Your task to perform on an android device: open app "Google Docs" Image 0: 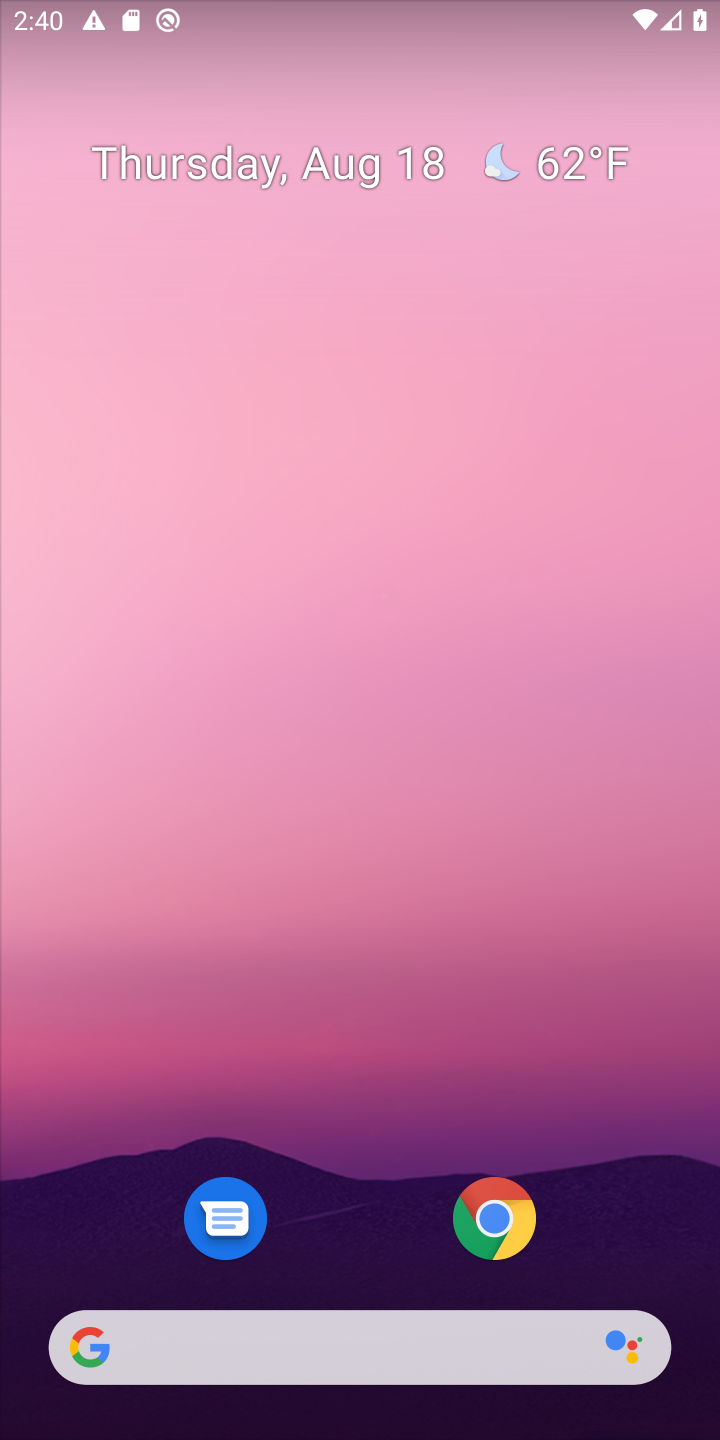
Step 0: drag from (355, 1198) to (388, 346)
Your task to perform on an android device: open app "Google Docs" Image 1: 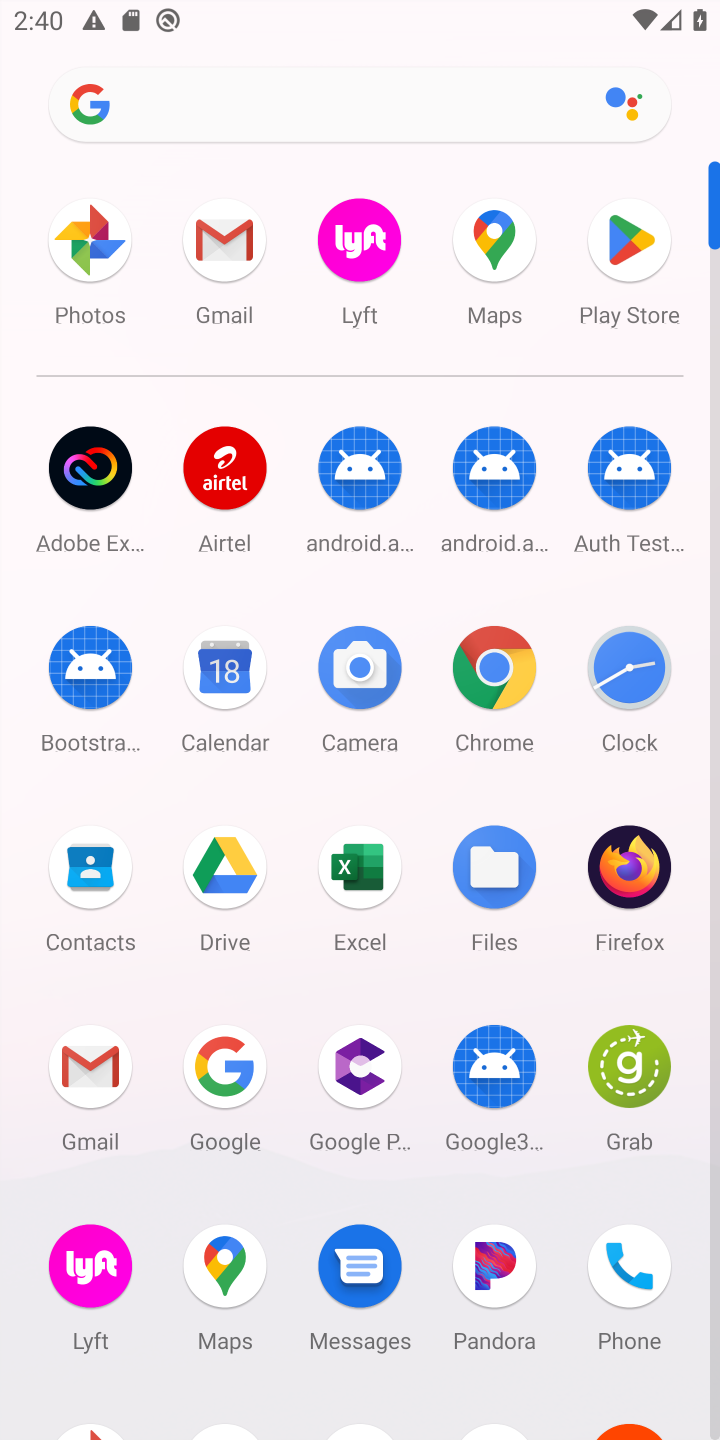
Step 1: click (611, 251)
Your task to perform on an android device: open app "Google Docs" Image 2: 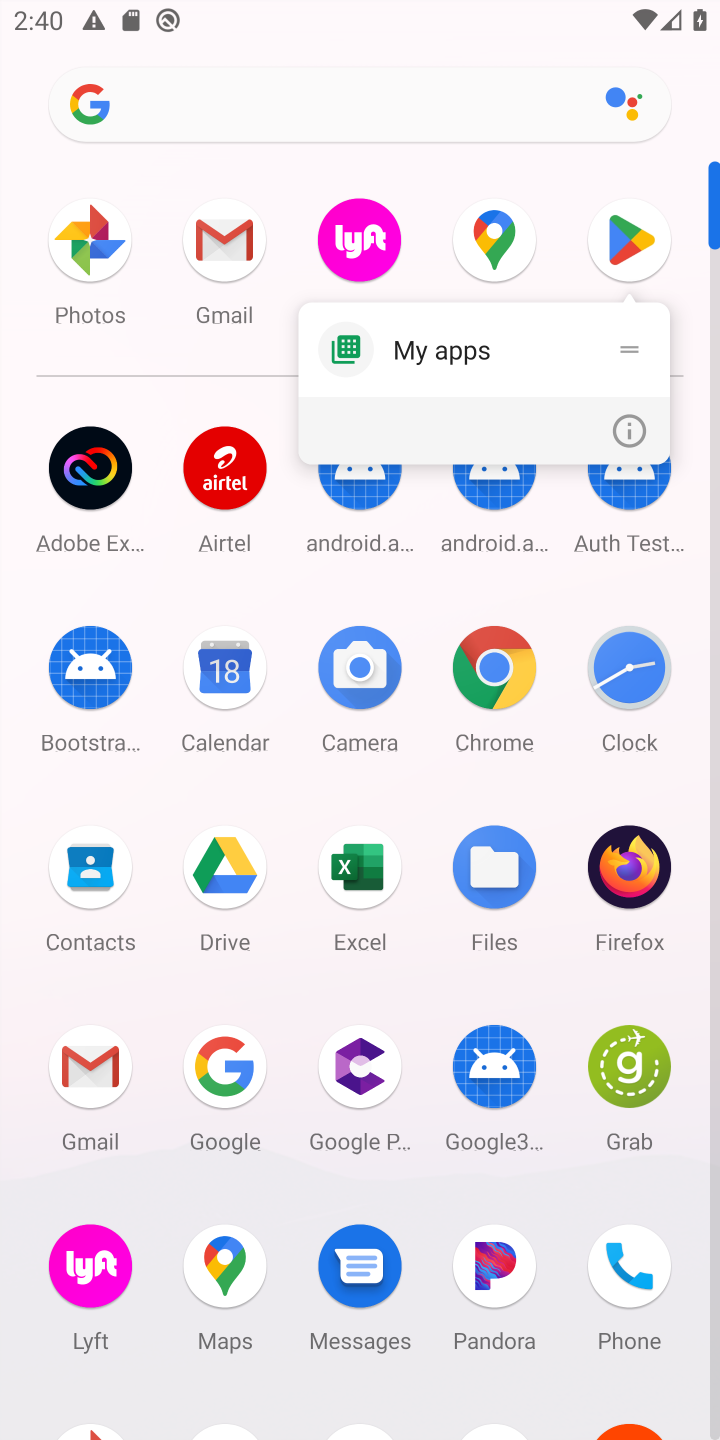
Step 2: click (621, 234)
Your task to perform on an android device: open app "Google Docs" Image 3: 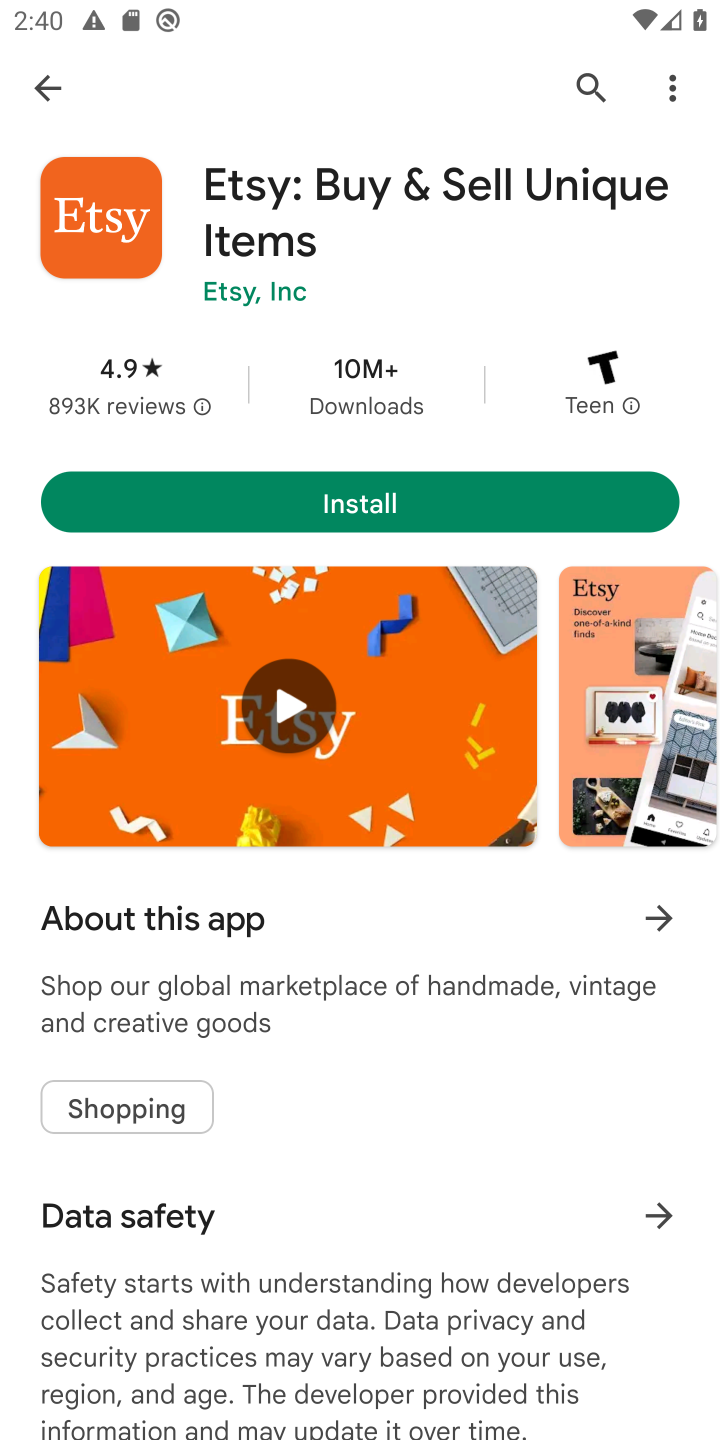
Step 3: click (592, 75)
Your task to perform on an android device: open app "Google Docs" Image 4: 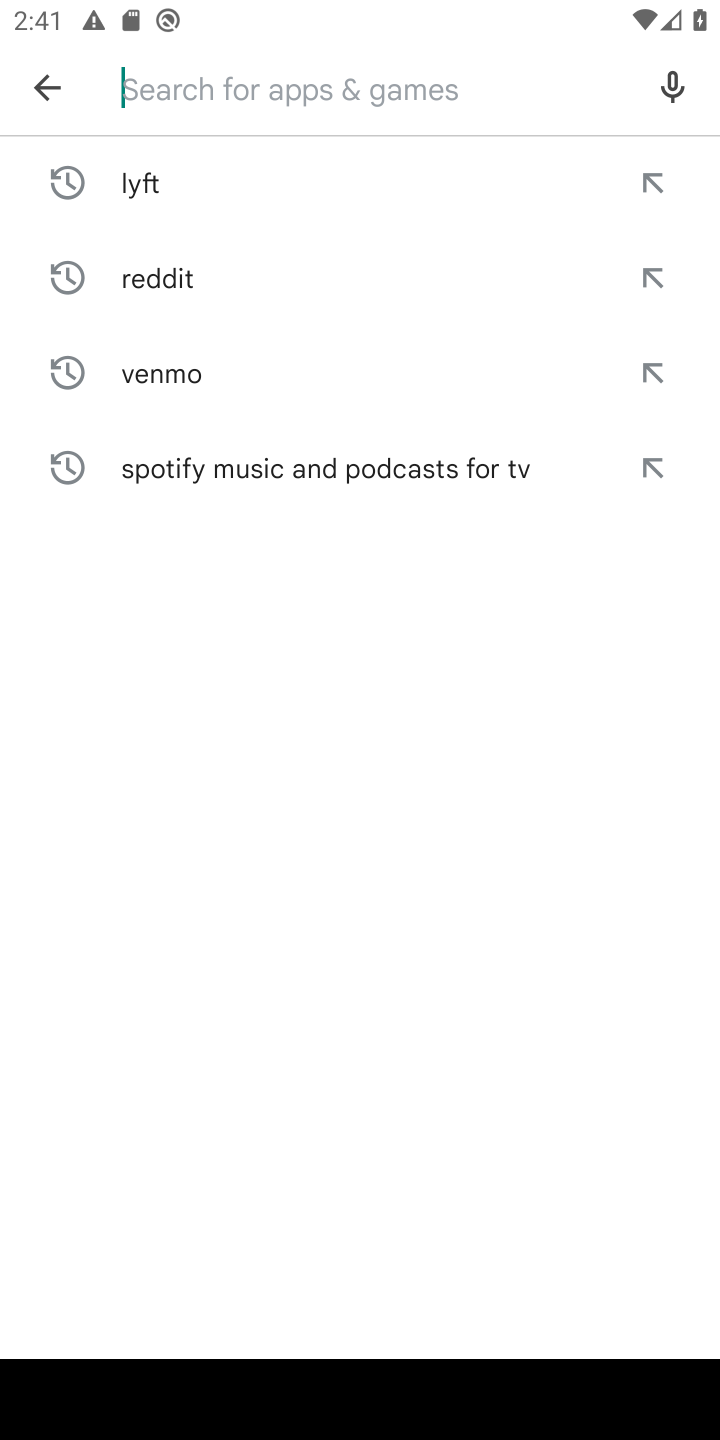
Step 4: type "Google Docs"
Your task to perform on an android device: open app "Google Docs" Image 5: 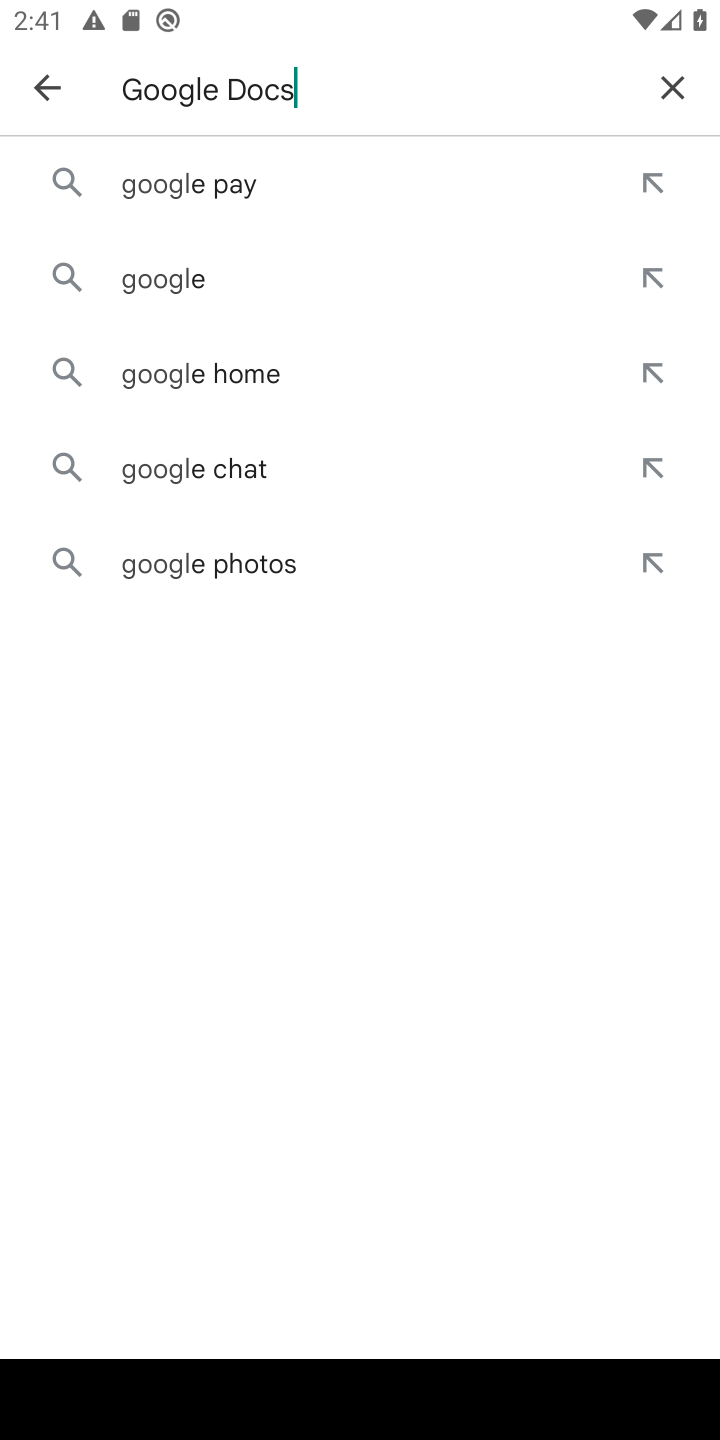
Step 5: type ""
Your task to perform on an android device: open app "Google Docs" Image 6: 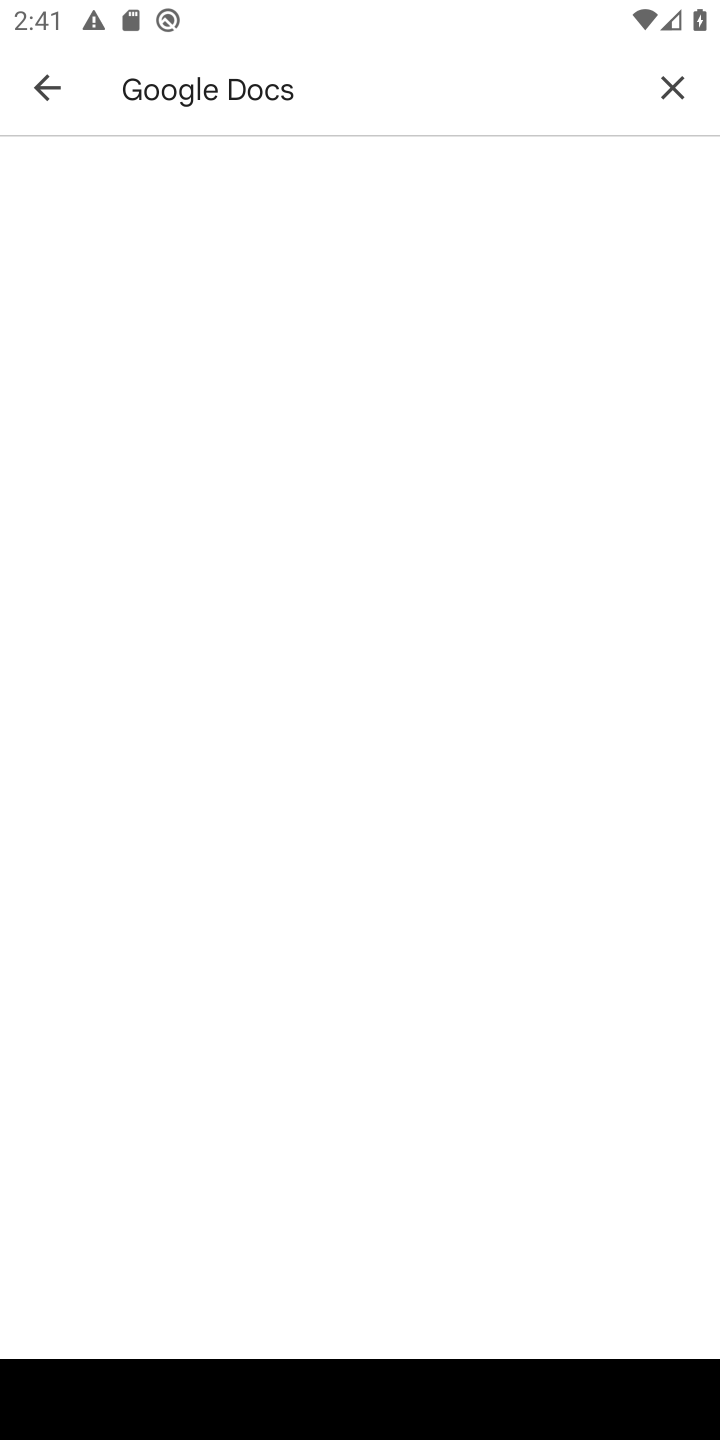
Step 6: task complete